Your task to perform on an android device: remove spam from my inbox in the gmail app Image 0: 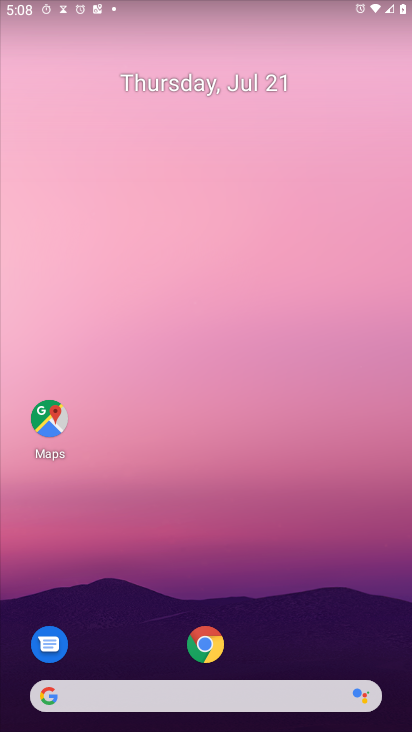
Step 0: press home button
Your task to perform on an android device: remove spam from my inbox in the gmail app Image 1: 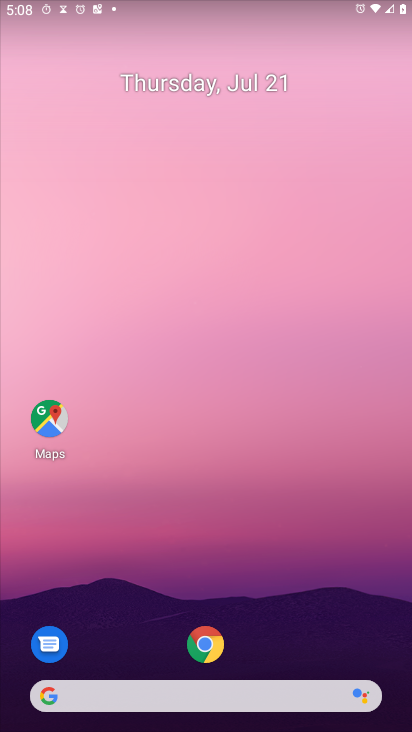
Step 1: press home button
Your task to perform on an android device: remove spam from my inbox in the gmail app Image 2: 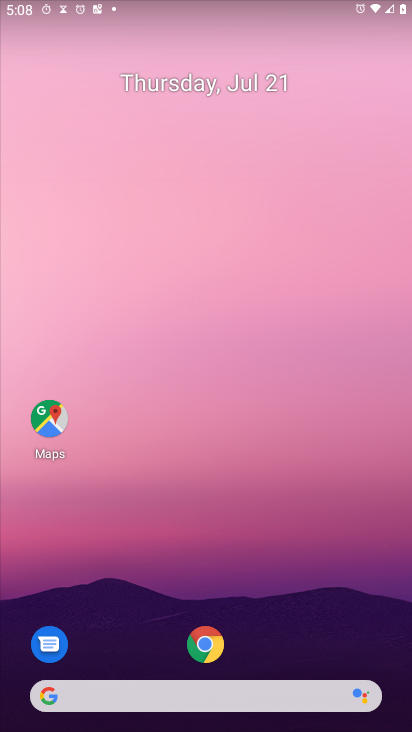
Step 2: drag from (304, 608) to (282, 3)
Your task to perform on an android device: remove spam from my inbox in the gmail app Image 3: 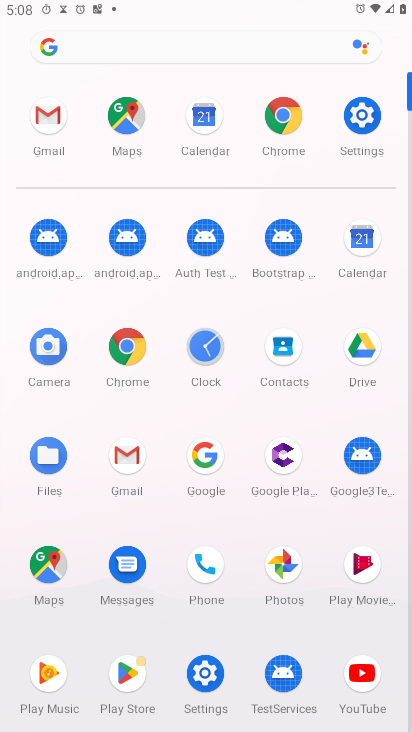
Step 3: click (48, 117)
Your task to perform on an android device: remove spam from my inbox in the gmail app Image 4: 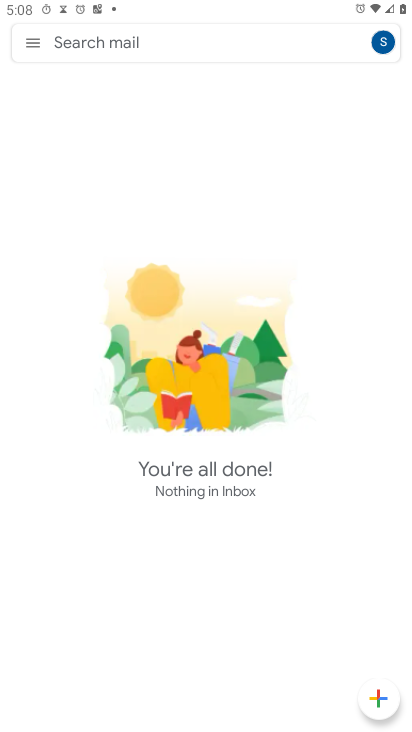
Step 4: click (29, 38)
Your task to perform on an android device: remove spam from my inbox in the gmail app Image 5: 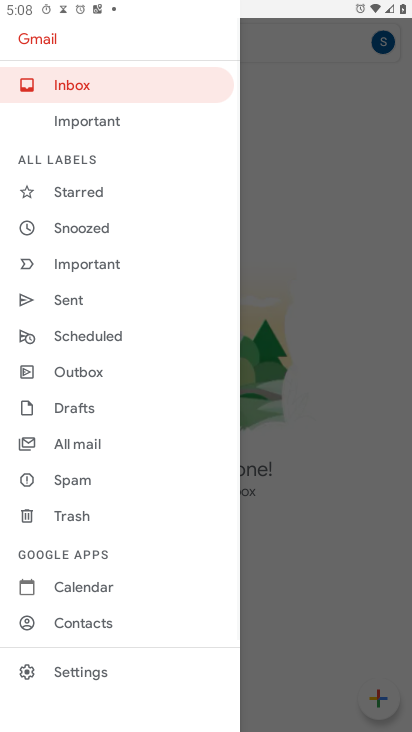
Step 5: click (79, 80)
Your task to perform on an android device: remove spam from my inbox in the gmail app Image 6: 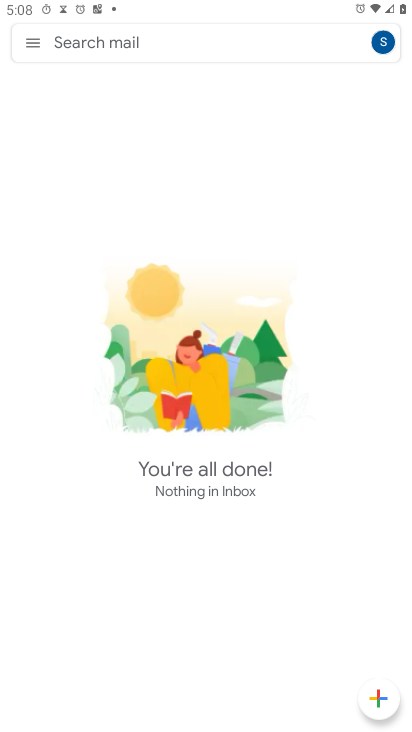
Step 6: task complete